Your task to perform on an android device: Go to Wikipedia Image 0: 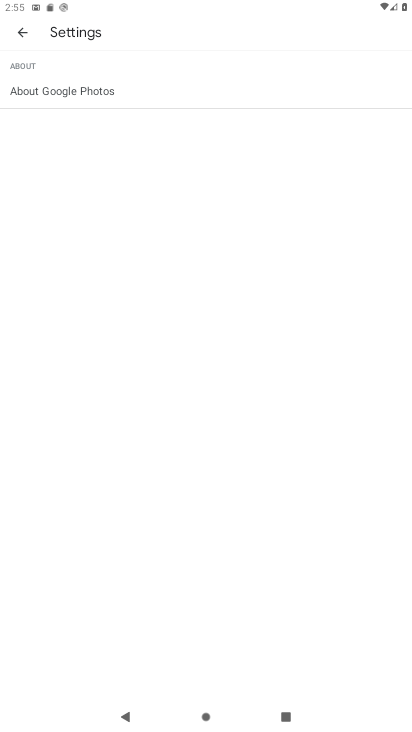
Step 0: press home button
Your task to perform on an android device: Go to Wikipedia Image 1: 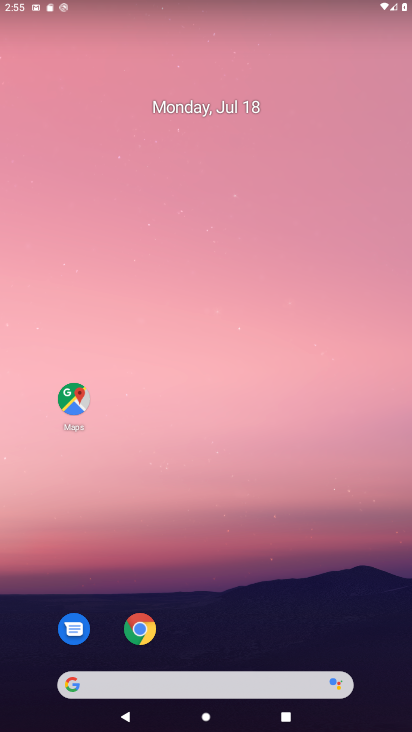
Step 1: drag from (309, 551) to (339, 78)
Your task to perform on an android device: Go to Wikipedia Image 2: 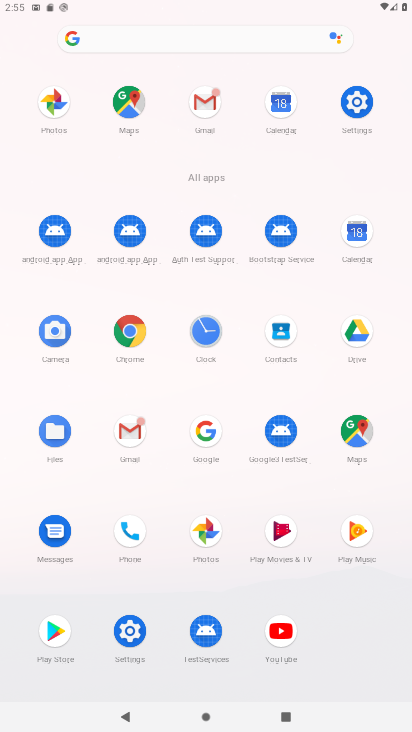
Step 2: click (129, 339)
Your task to perform on an android device: Go to Wikipedia Image 3: 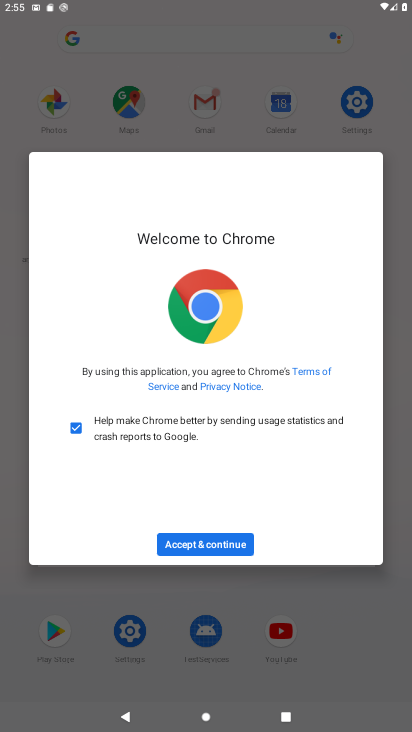
Step 3: click (224, 542)
Your task to perform on an android device: Go to Wikipedia Image 4: 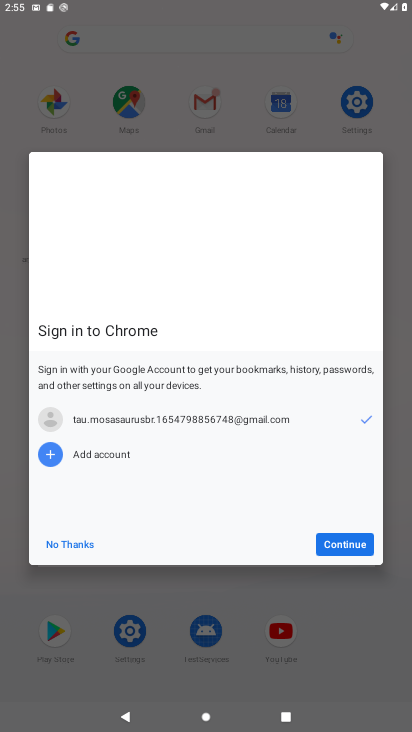
Step 4: click (335, 535)
Your task to perform on an android device: Go to Wikipedia Image 5: 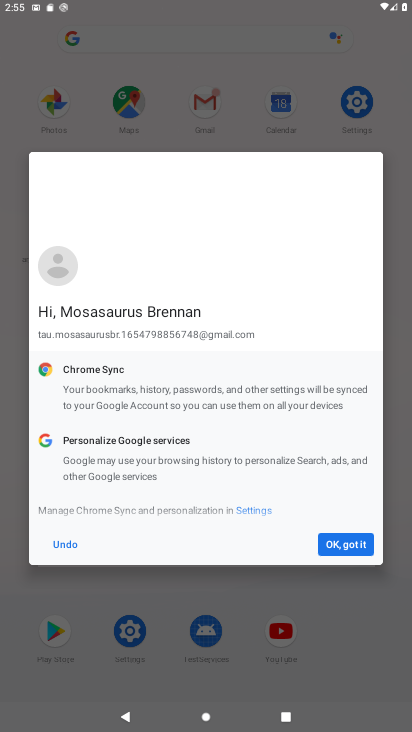
Step 5: click (335, 547)
Your task to perform on an android device: Go to Wikipedia Image 6: 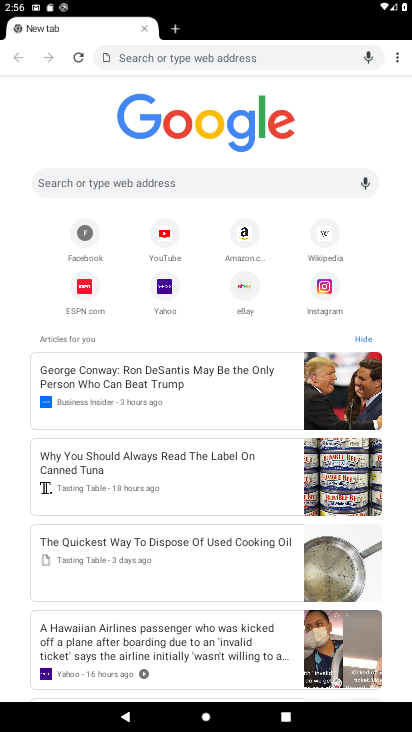
Step 6: type "wikipedia"
Your task to perform on an android device: Go to Wikipedia Image 7: 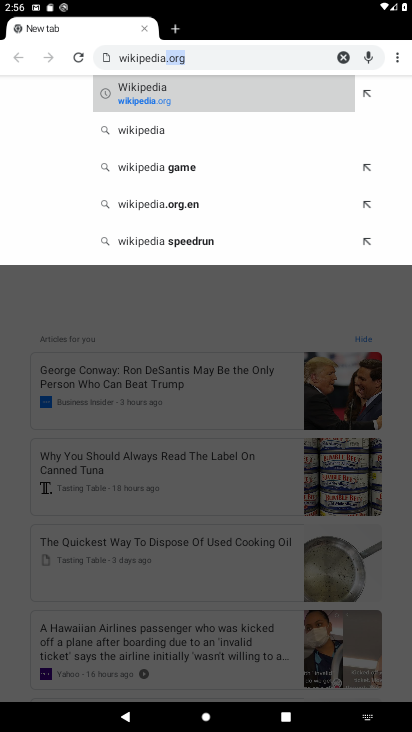
Step 7: click (286, 99)
Your task to perform on an android device: Go to Wikipedia Image 8: 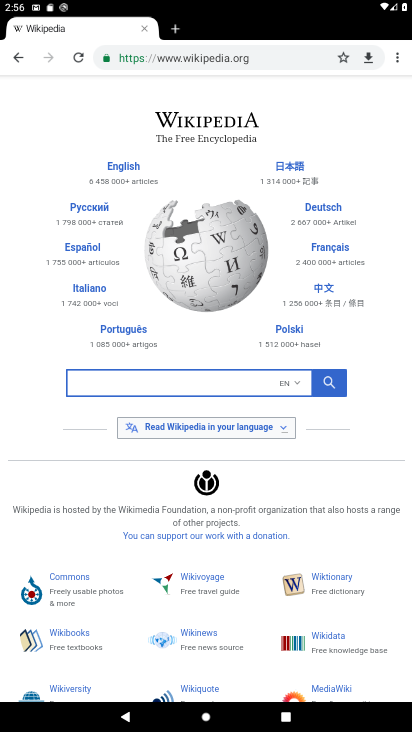
Step 8: task complete